Your task to perform on an android device: Open calendar and show me the first week of next month Image 0: 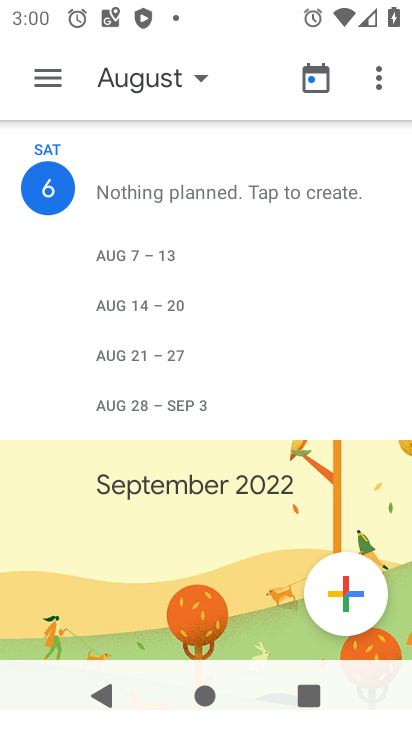
Step 0: press home button
Your task to perform on an android device: Open calendar and show me the first week of next month Image 1: 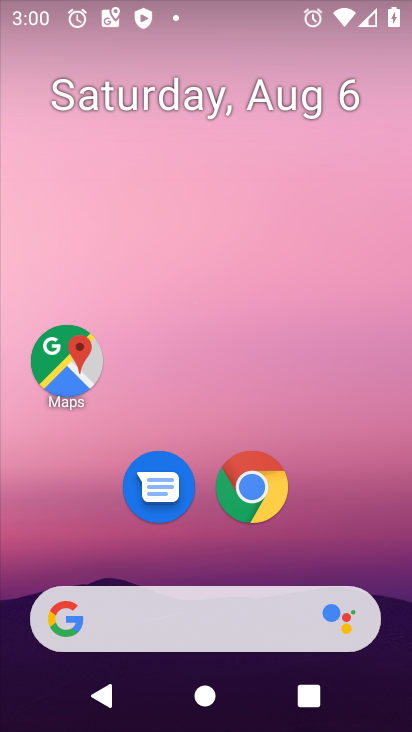
Step 1: drag from (223, 594) to (185, 203)
Your task to perform on an android device: Open calendar and show me the first week of next month Image 2: 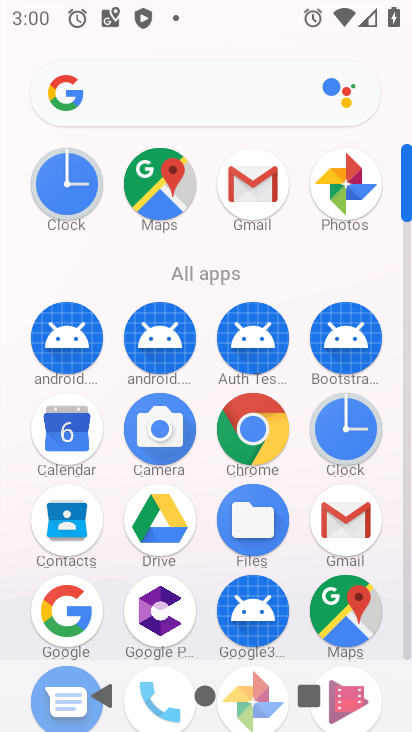
Step 2: click (48, 451)
Your task to perform on an android device: Open calendar and show me the first week of next month Image 3: 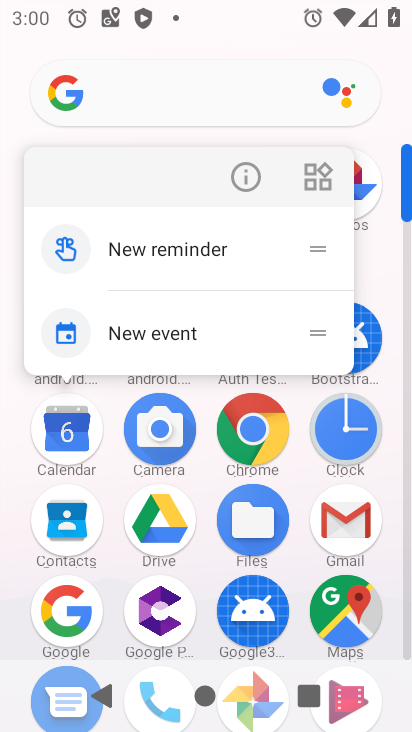
Step 3: click (78, 429)
Your task to perform on an android device: Open calendar and show me the first week of next month Image 4: 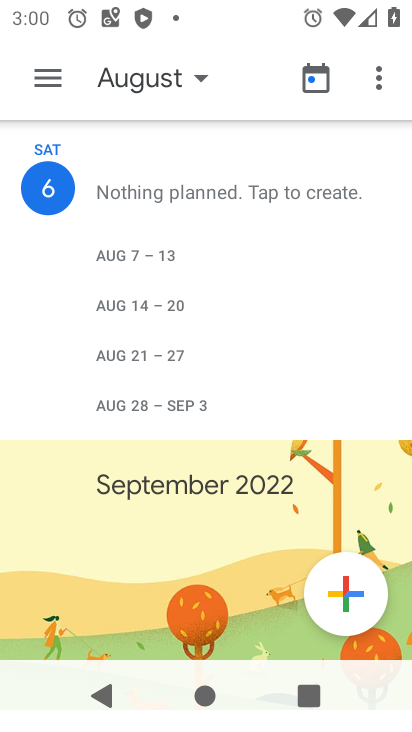
Step 4: click (56, 85)
Your task to perform on an android device: Open calendar and show me the first week of next month Image 5: 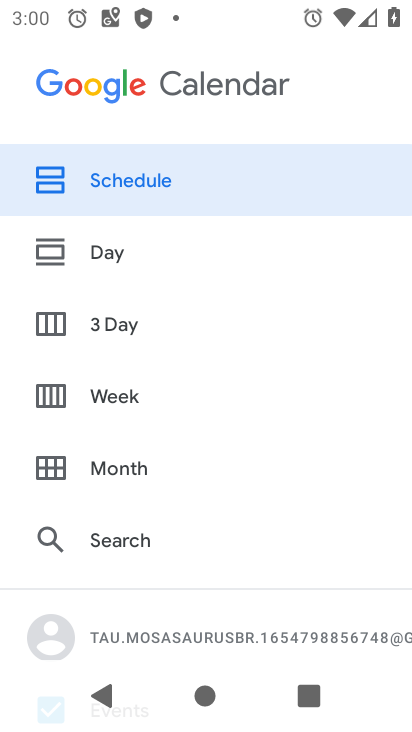
Step 5: click (112, 467)
Your task to perform on an android device: Open calendar and show me the first week of next month Image 6: 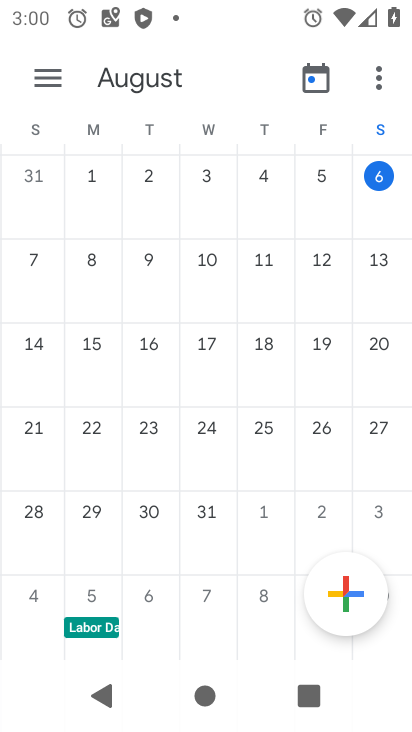
Step 6: task complete